Your task to perform on an android device: open chrome privacy settings Image 0: 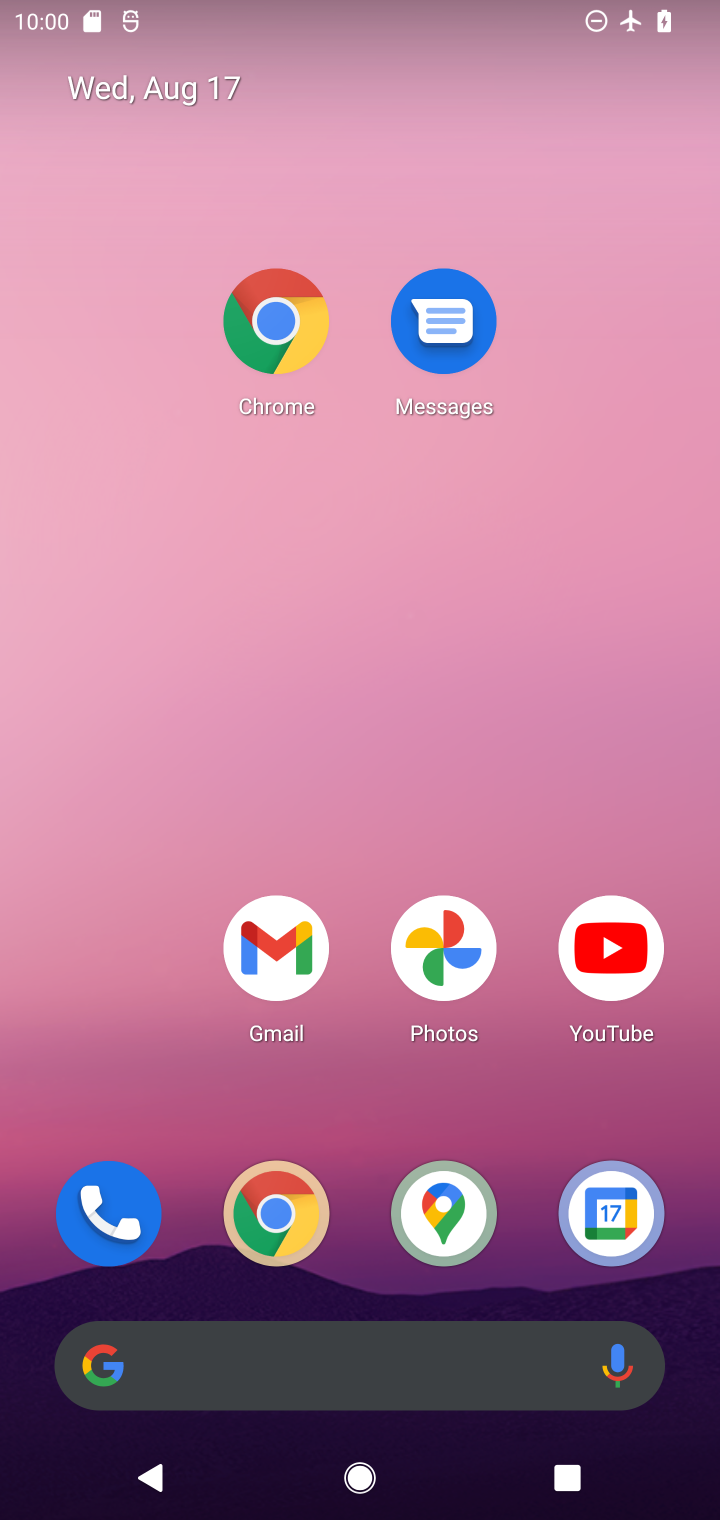
Step 0: click (300, 1220)
Your task to perform on an android device: open chrome privacy settings Image 1: 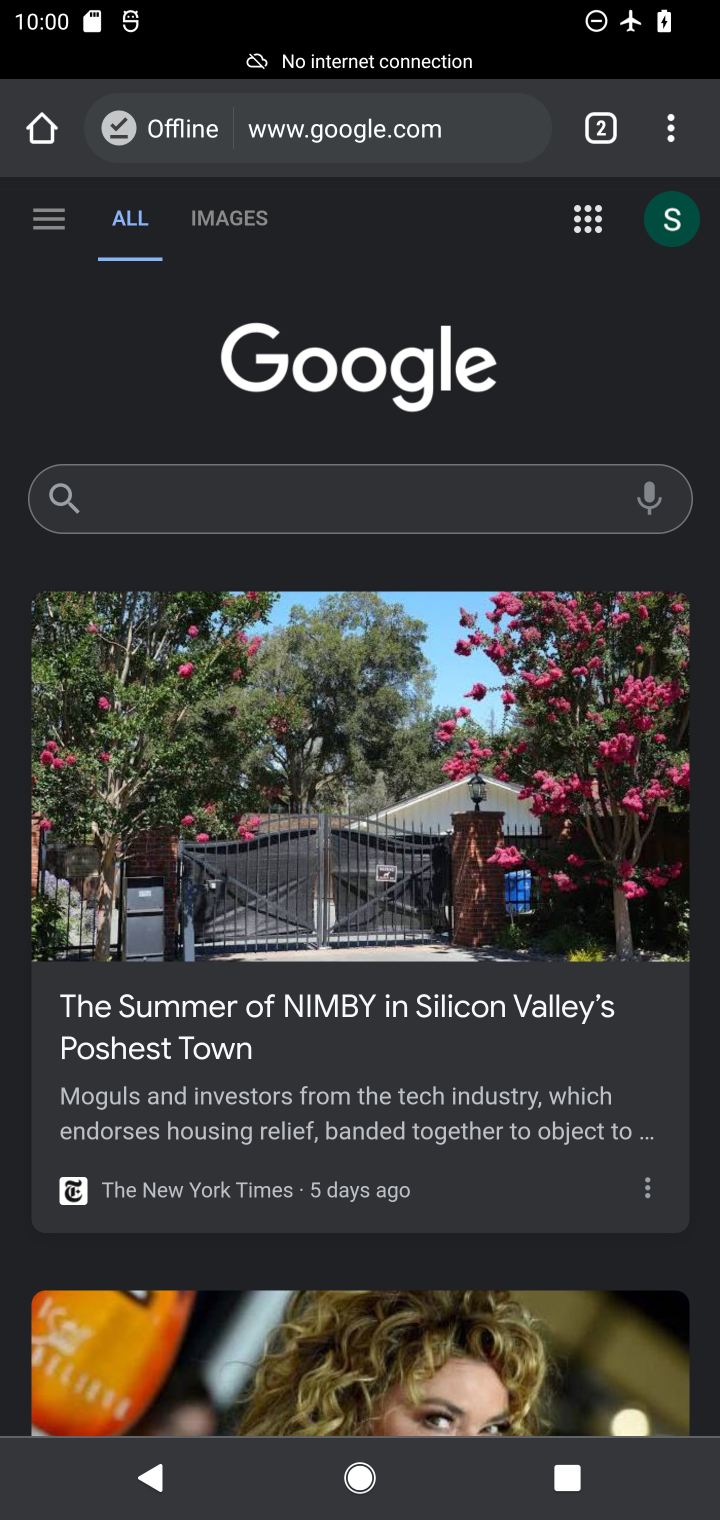
Step 1: click (653, 147)
Your task to perform on an android device: open chrome privacy settings Image 2: 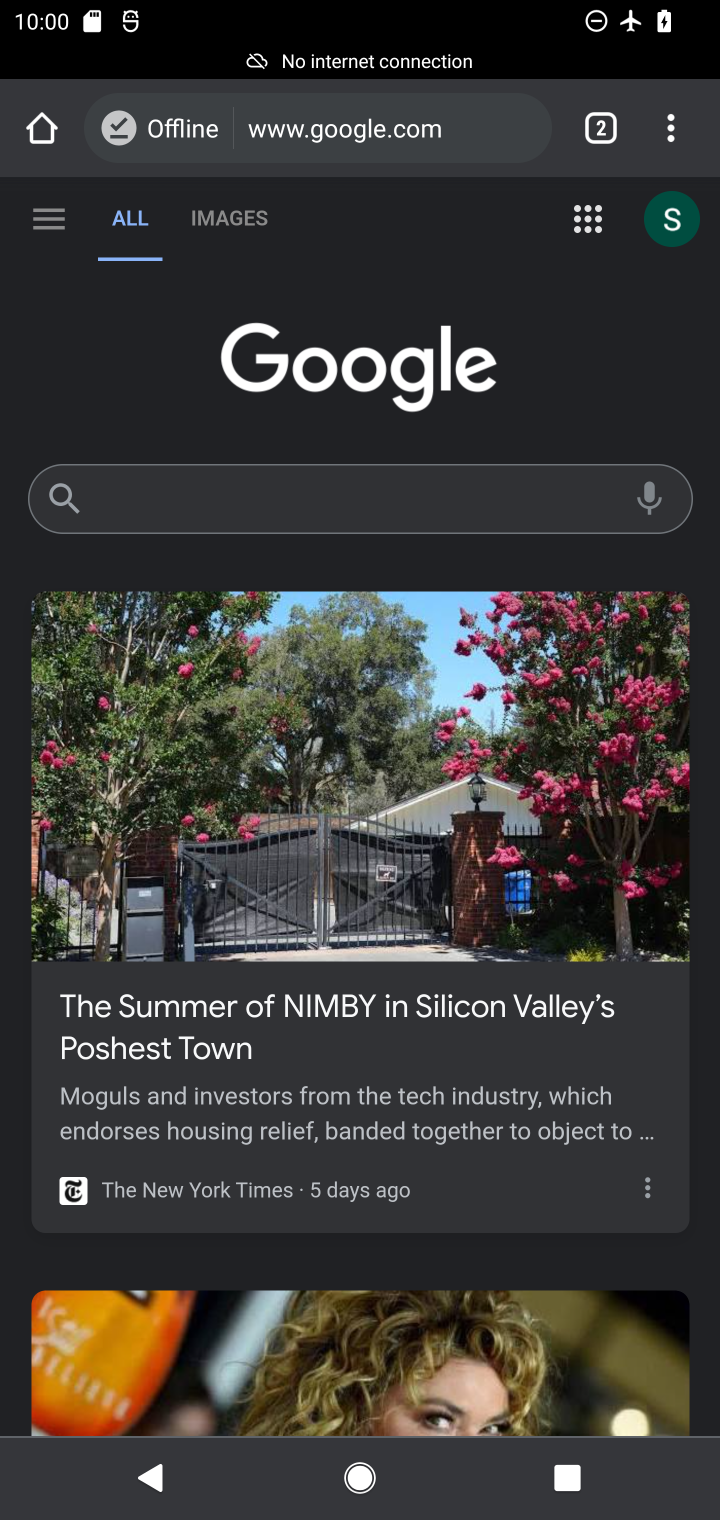
Step 2: task complete